Your task to perform on an android device: Go to privacy settings Image 0: 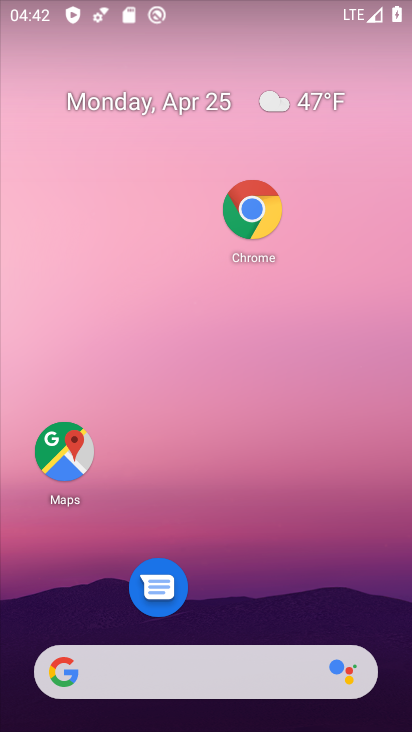
Step 0: click (254, 199)
Your task to perform on an android device: Go to privacy settings Image 1: 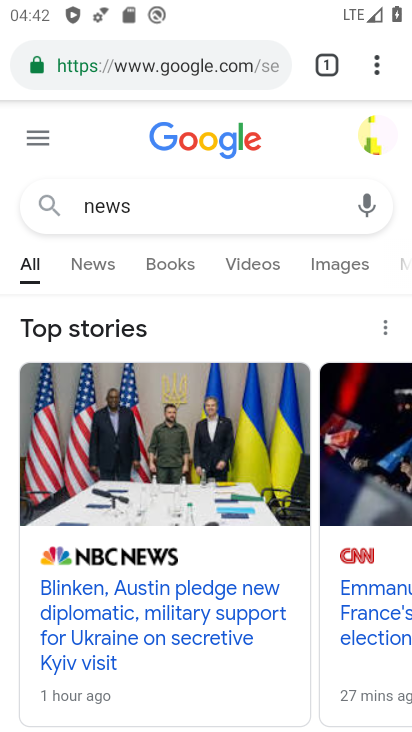
Step 1: click (375, 89)
Your task to perform on an android device: Go to privacy settings Image 2: 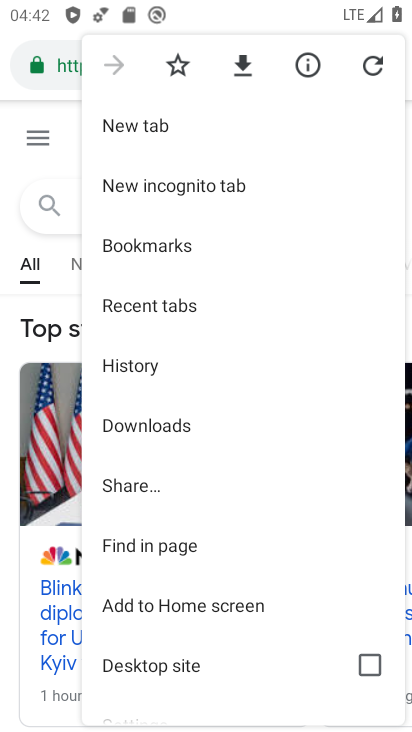
Step 2: drag from (265, 637) to (275, 134)
Your task to perform on an android device: Go to privacy settings Image 3: 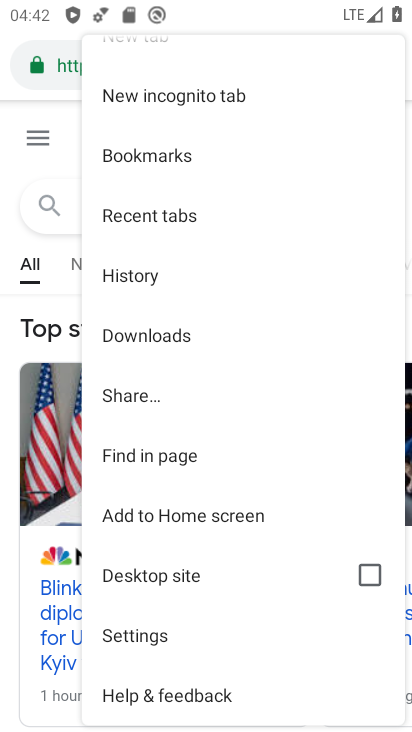
Step 3: click (254, 644)
Your task to perform on an android device: Go to privacy settings Image 4: 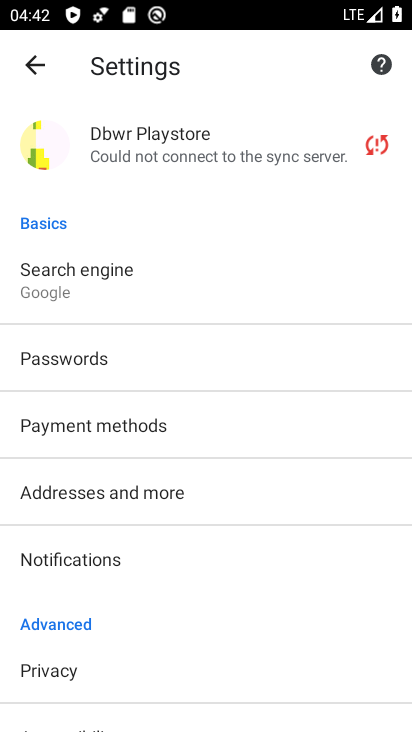
Step 4: drag from (254, 644) to (206, 298)
Your task to perform on an android device: Go to privacy settings Image 5: 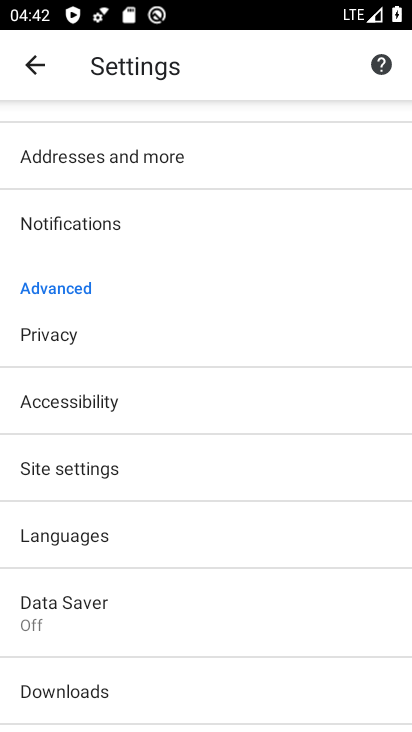
Step 5: click (212, 329)
Your task to perform on an android device: Go to privacy settings Image 6: 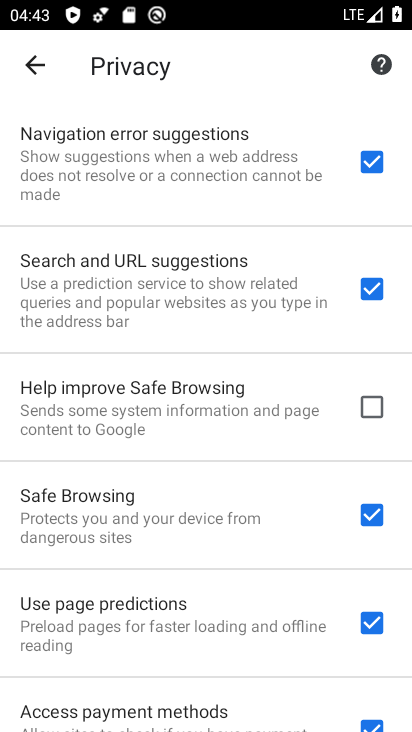
Step 6: task complete